Your task to perform on an android device: uninstall "Upside-Cash back on gas & food" Image 0: 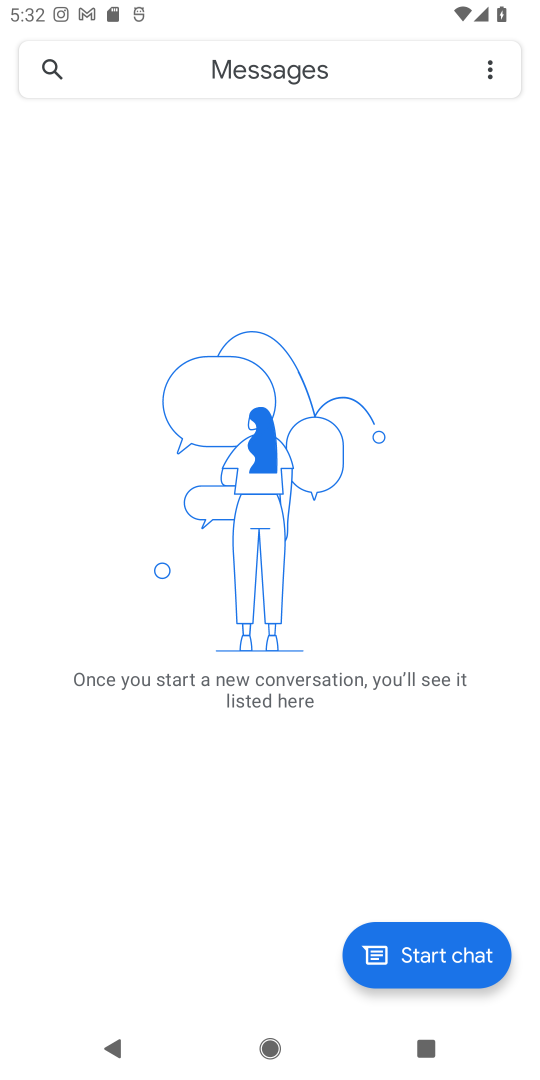
Step 0: press home button
Your task to perform on an android device: uninstall "Upside-Cash back on gas & food" Image 1: 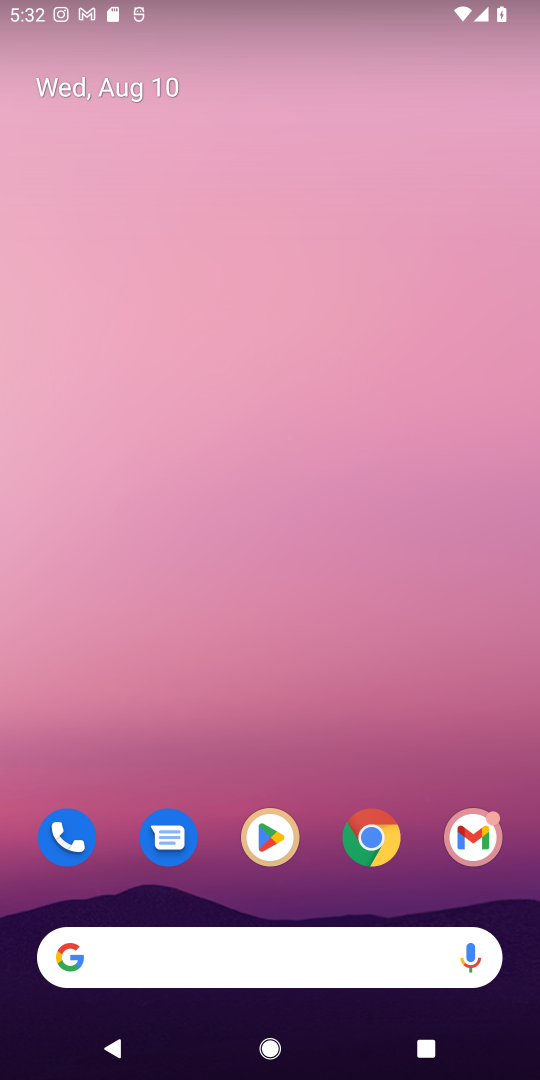
Step 1: click (267, 837)
Your task to perform on an android device: uninstall "Upside-Cash back on gas & food" Image 2: 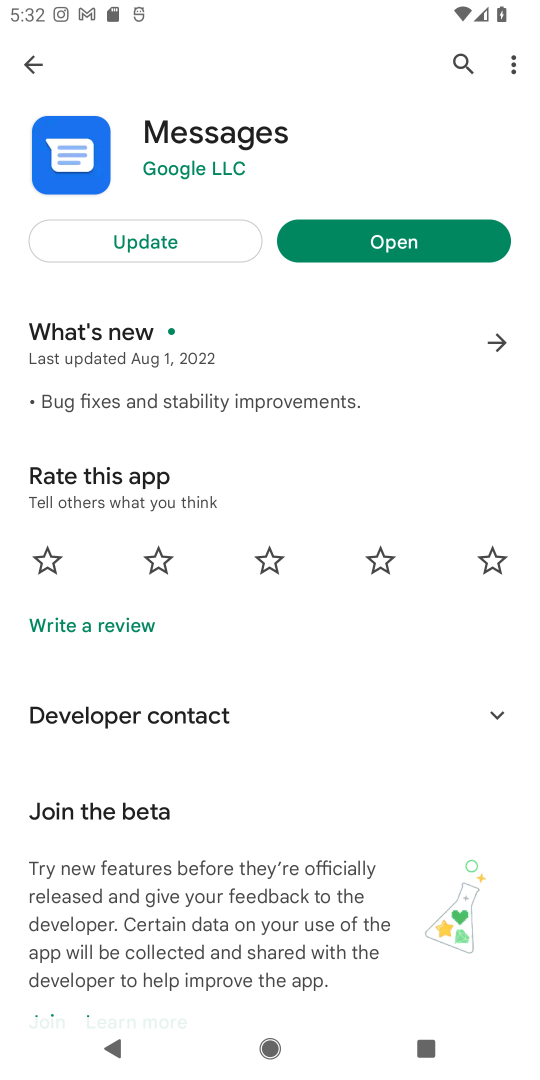
Step 2: click (462, 51)
Your task to perform on an android device: uninstall "Upside-Cash back on gas & food" Image 3: 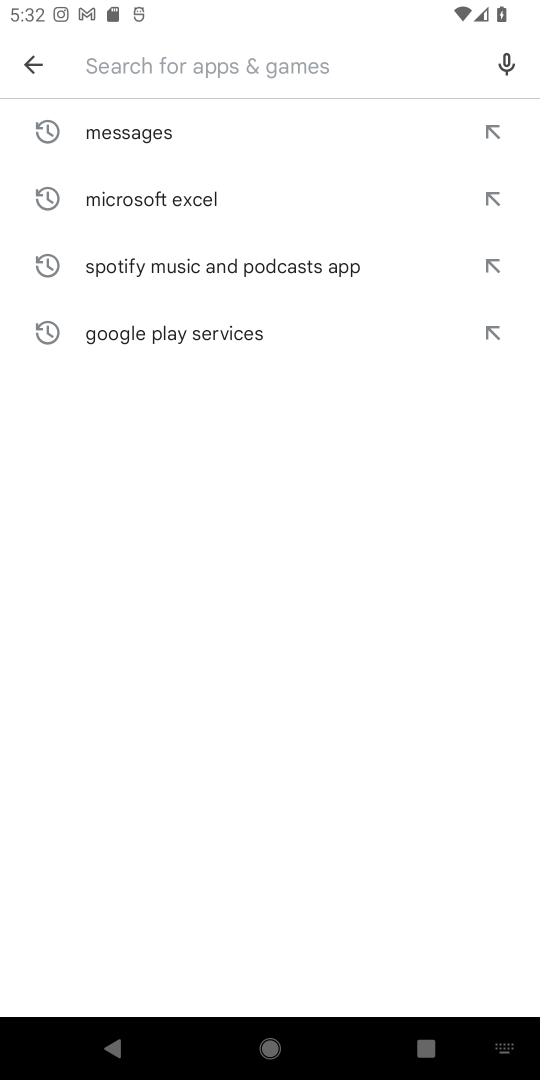
Step 3: type "Upside-Cash back on gas & food"
Your task to perform on an android device: uninstall "Upside-Cash back on gas & food" Image 4: 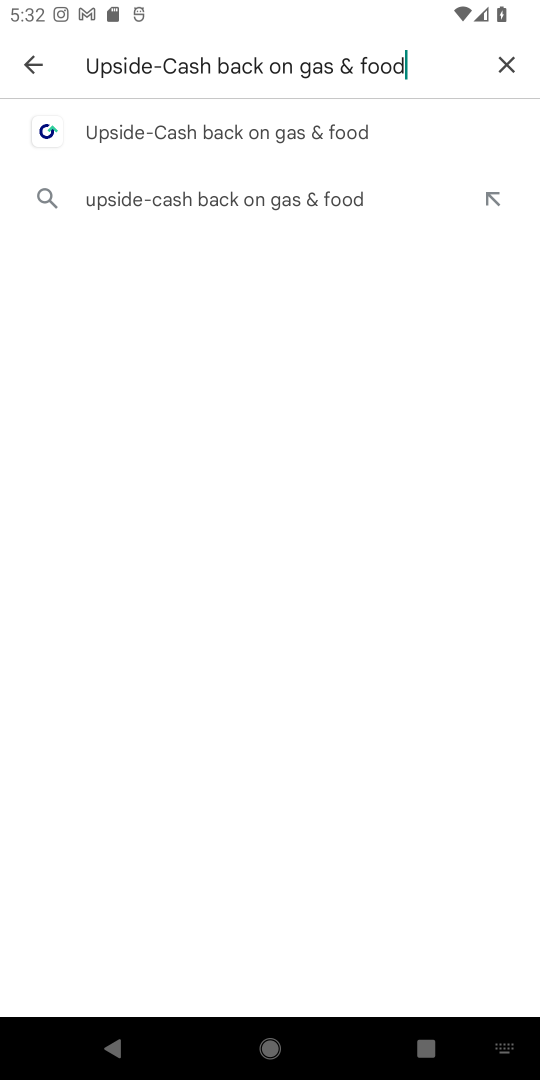
Step 4: click (187, 131)
Your task to perform on an android device: uninstall "Upside-Cash back on gas & food" Image 5: 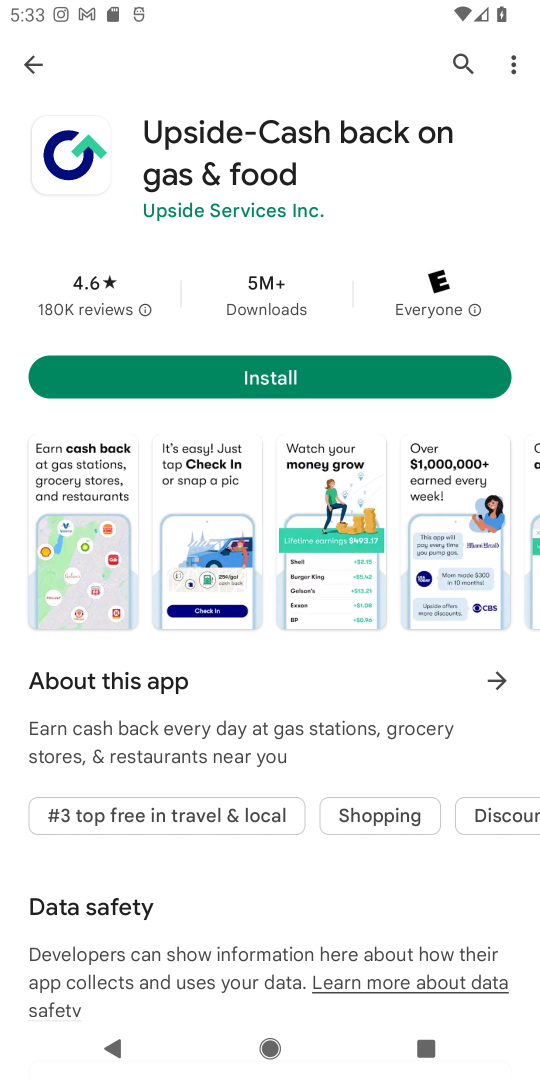
Step 5: task complete